Your task to perform on an android device: clear all cookies in the chrome app Image 0: 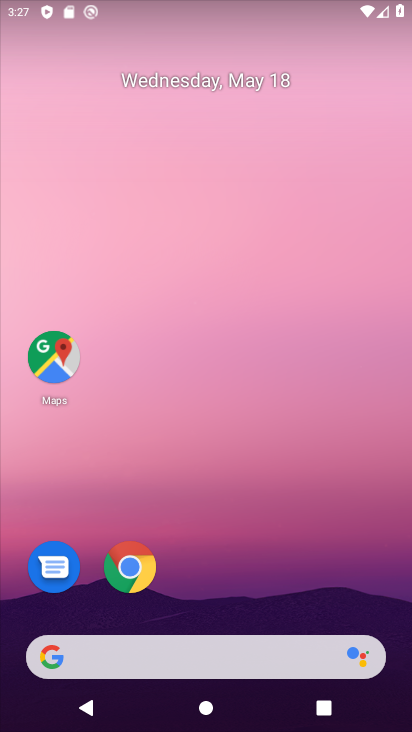
Step 0: click (140, 568)
Your task to perform on an android device: clear all cookies in the chrome app Image 1: 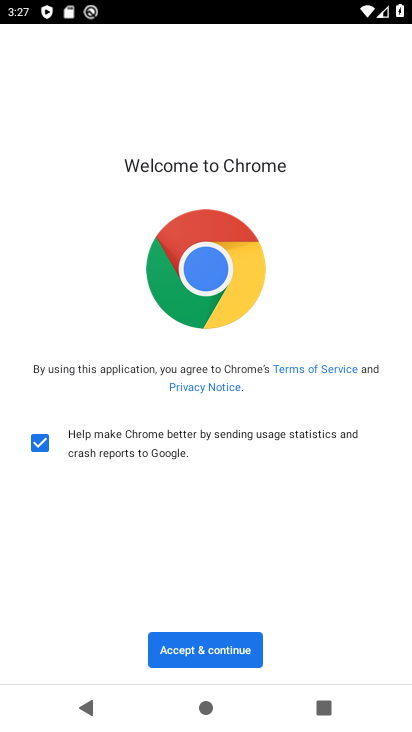
Step 1: click (229, 644)
Your task to perform on an android device: clear all cookies in the chrome app Image 2: 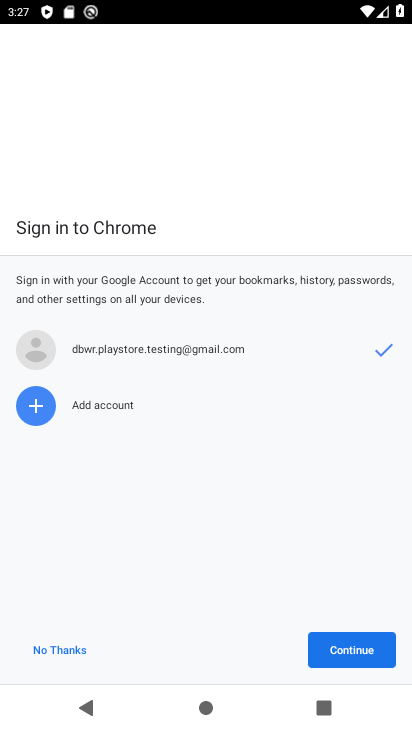
Step 2: click (359, 655)
Your task to perform on an android device: clear all cookies in the chrome app Image 3: 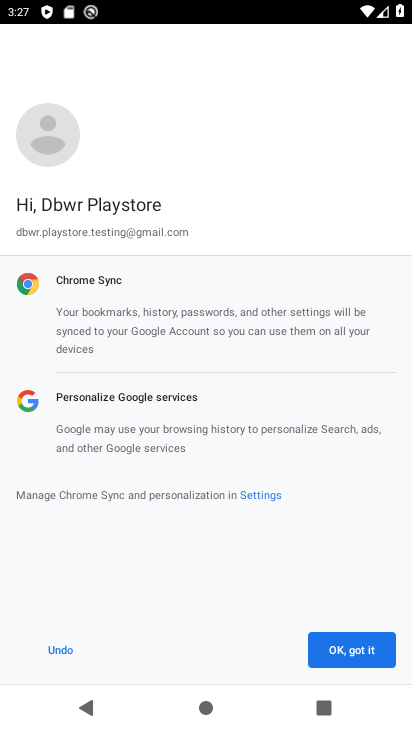
Step 3: click (359, 655)
Your task to perform on an android device: clear all cookies in the chrome app Image 4: 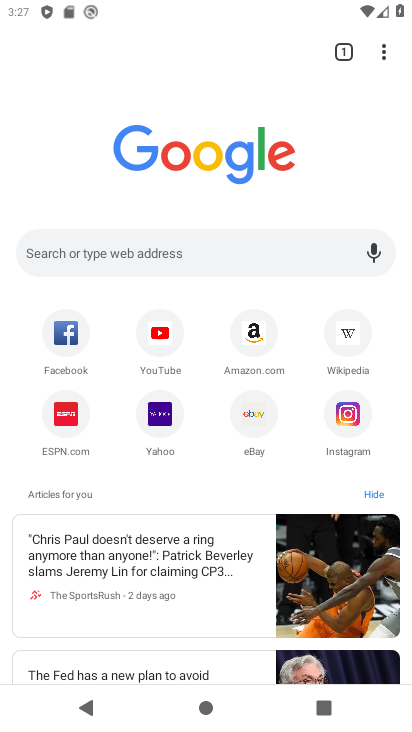
Step 4: drag from (383, 49) to (216, 431)
Your task to perform on an android device: clear all cookies in the chrome app Image 5: 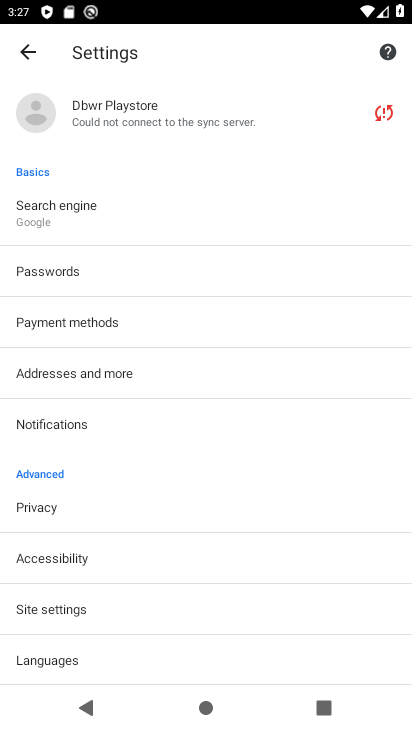
Step 5: click (44, 503)
Your task to perform on an android device: clear all cookies in the chrome app Image 6: 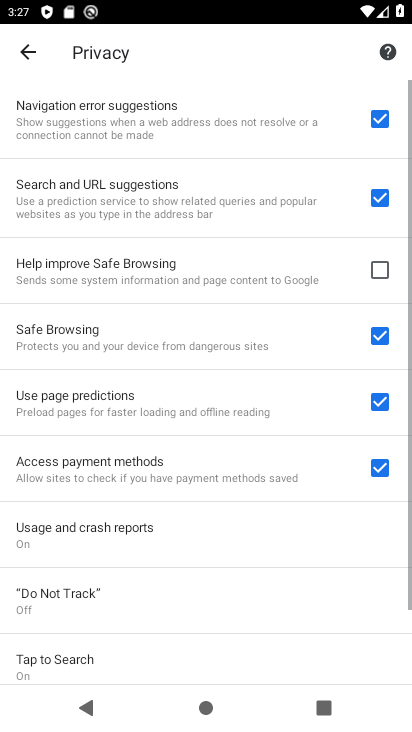
Step 6: drag from (284, 602) to (310, 94)
Your task to perform on an android device: clear all cookies in the chrome app Image 7: 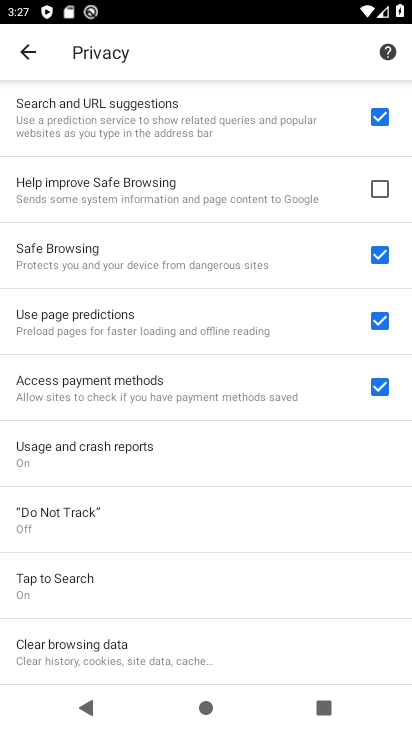
Step 7: click (59, 643)
Your task to perform on an android device: clear all cookies in the chrome app Image 8: 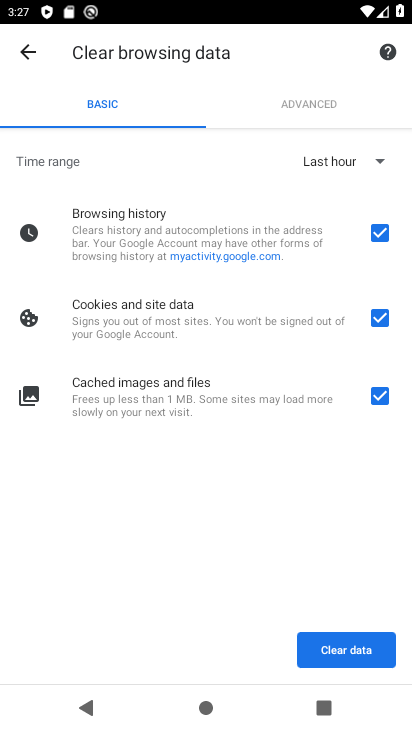
Step 8: click (345, 655)
Your task to perform on an android device: clear all cookies in the chrome app Image 9: 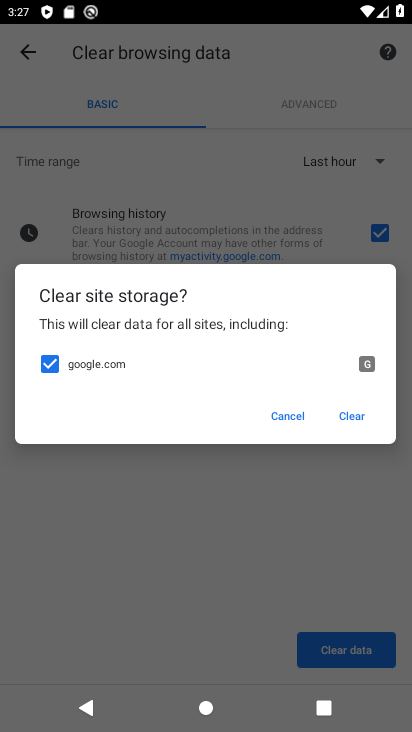
Step 9: click (356, 406)
Your task to perform on an android device: clear all cookies in the chrome app Image 10: 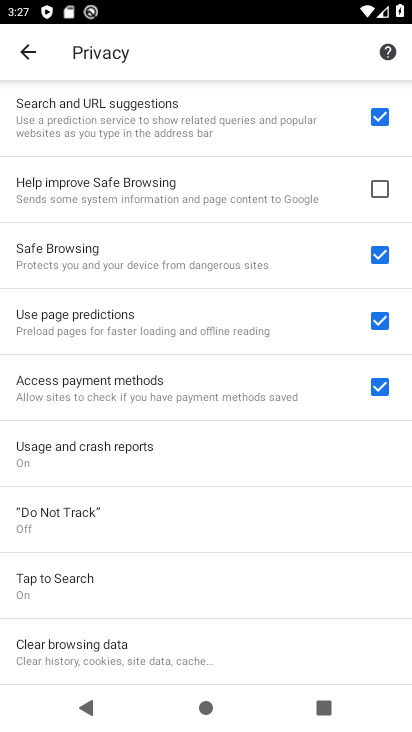
Step 10: task complete